Your task to perform on an android device: toggle airplane mode Image 0: 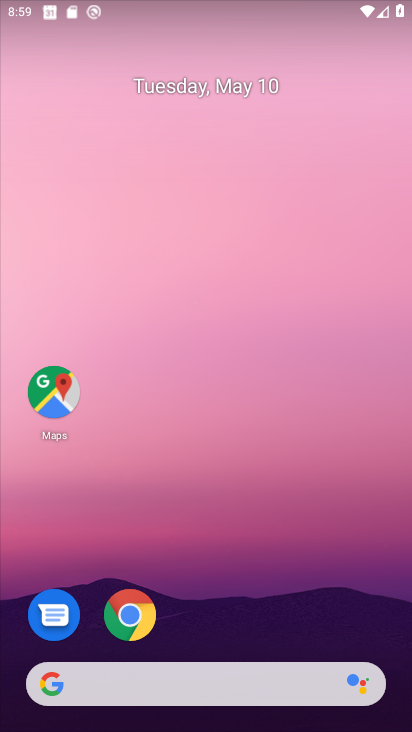
Step 0: drag from (180, 633) to (118, 14)
Your task to perform on an android device: toggle airplane mode Image 1: 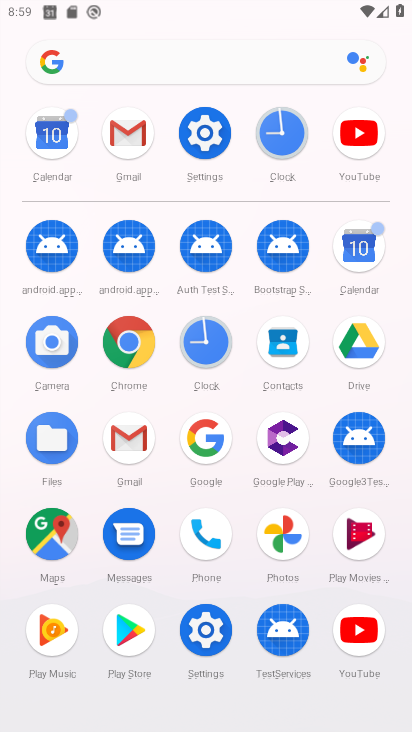
Step 1: click (208, 129)
Your task to perform on an android device: toggle airplane mode Image 2: 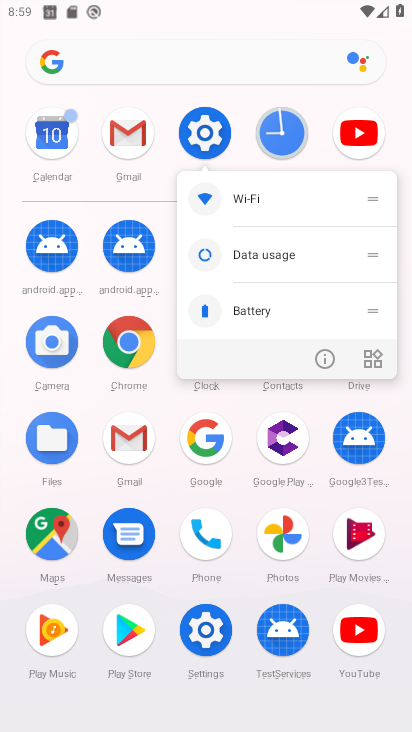
Step 2: click (326, 370)
Your task to perform on an android device: toggle airplane mode Image 3: 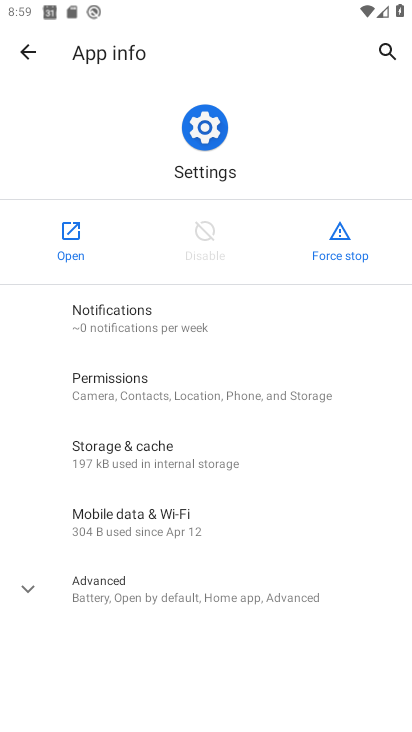
Step 3: click (92, 242)
Your task to perform on an android device: toggle airplane mode Image 4: 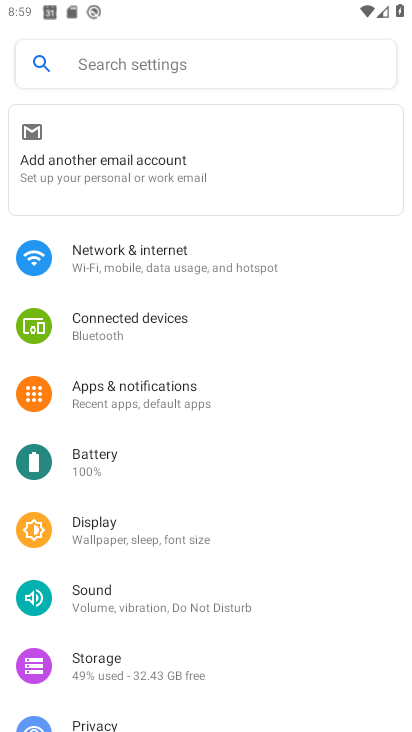
Step 4: drag from (176, 620) to (240, 213)
Your task to perform on an android device: toggle airplane mode Image 5: 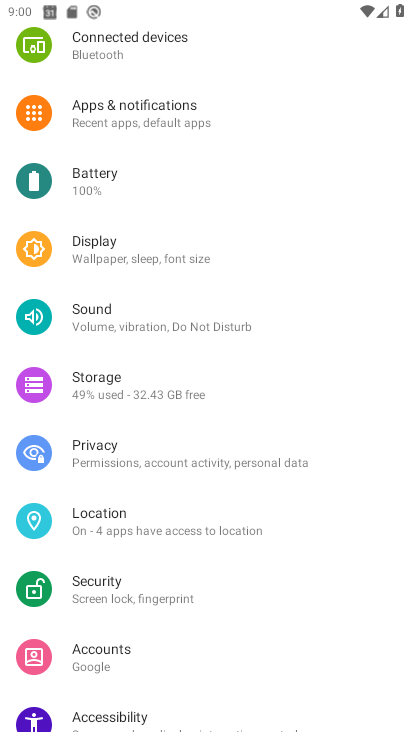
Step 5: drag from (150, 645) to (150, 273)
Your task to perform on an android device: toggle airplane mode Image 6: 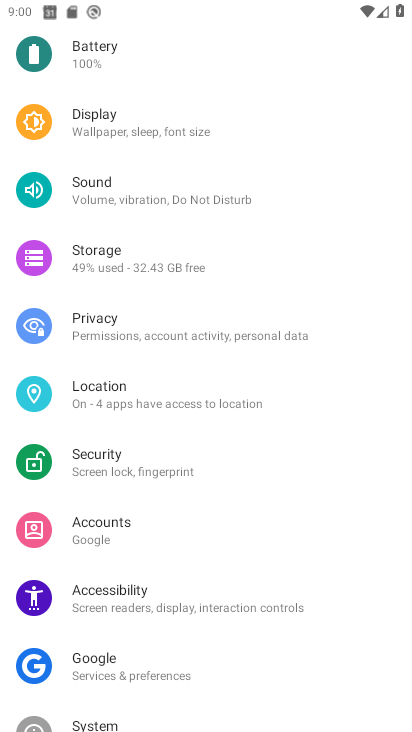
Step 6: drag from (169, 675) to (238, 267)
Your task to perform on an android device: toggle airplane mode Image 7: 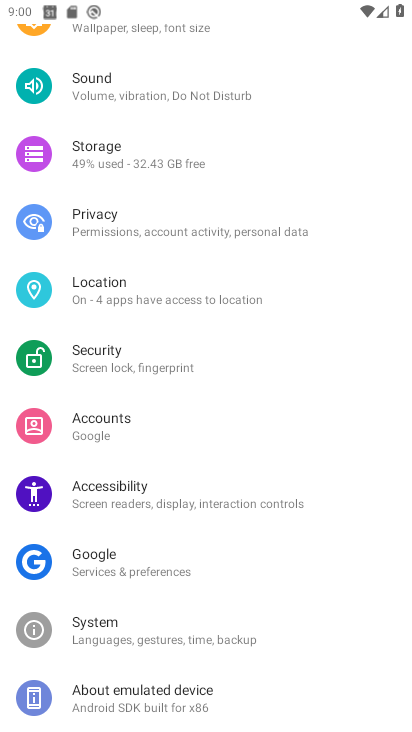
Step 7: drag from (245, 237) to (268, 731)
Your task to perform on an android device: toggle airplane mode Image 8: 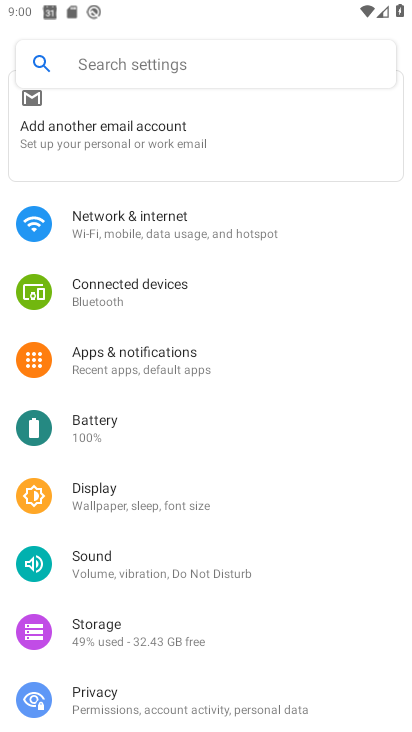
Step 8: drag from (232, 217) to (272, 578)
Your task to perform on an android device: toggle airplane mode Image 9: 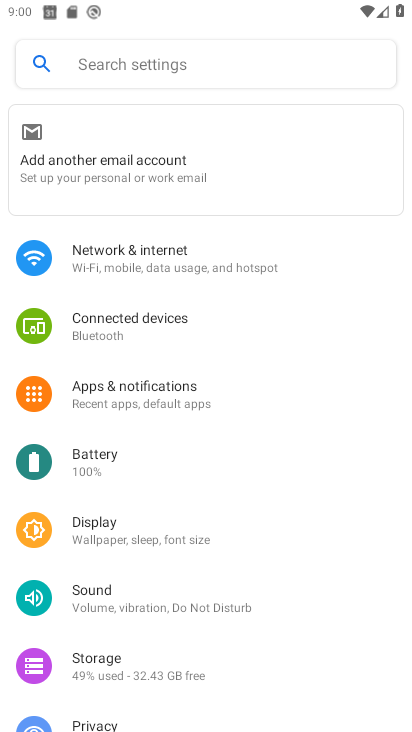
Step 9: click (170, 256)
Your task to perform on an android device: toggle airplane mode Image 10: 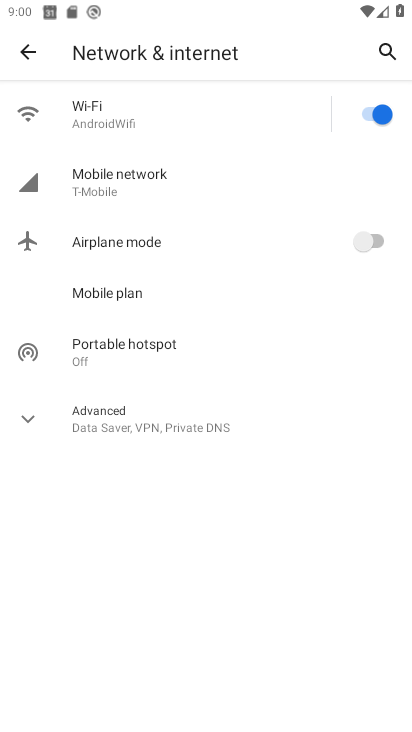
Step 10: click (322, 255)
Your task to perform on an android device: toggle airplane mode Image 11: 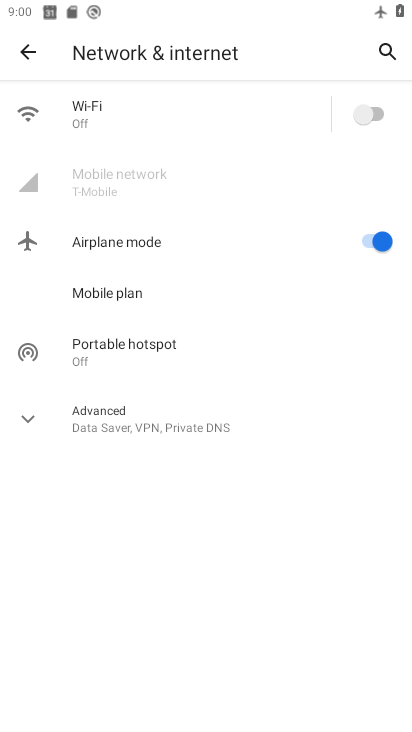
Step 11: task complete